Your task to perform on an android device: Search for "usb-a" on ebay.com, select the first entry, and add it to the cart. Image 0: 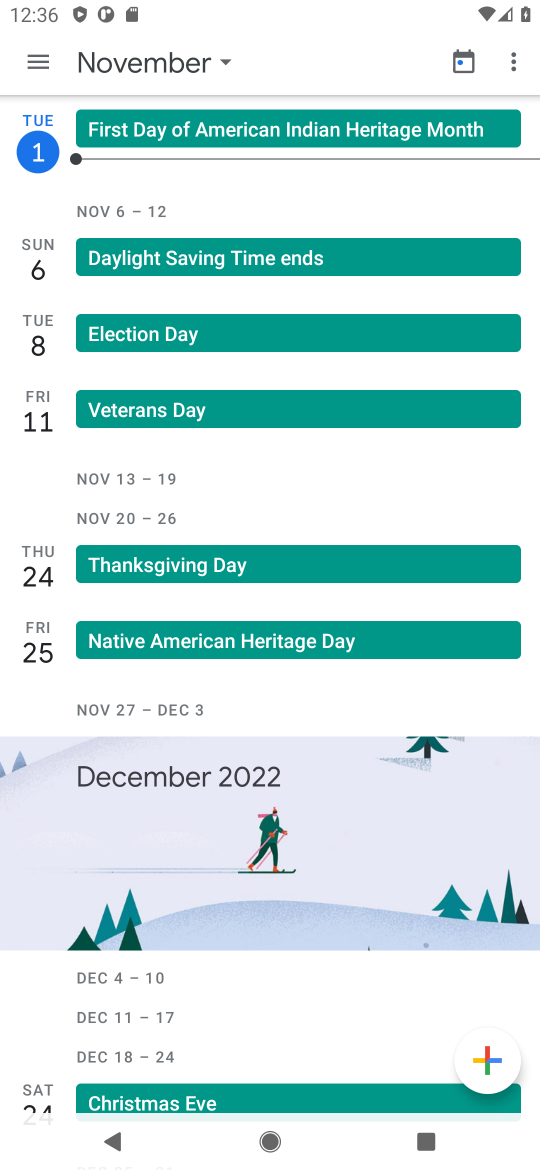
Step 0: press home button
Your task to perform on an android device: Search for "usb-a" on ebay.com, select the first entry, and add it to the cart. Image 1: 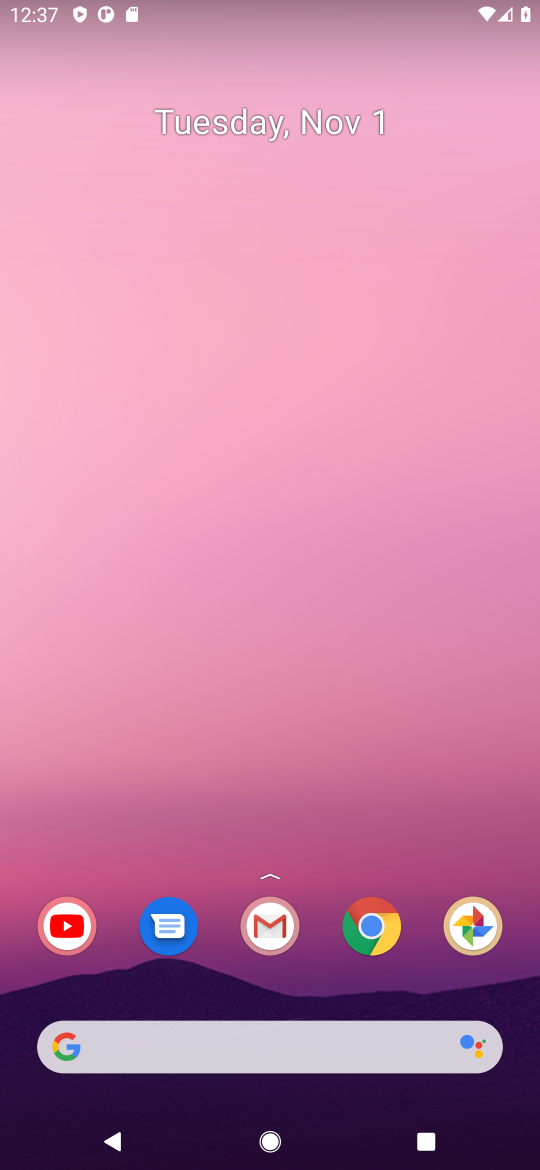
Step 1: click (375, 934)
Your task to perform on an android device: Search for "usb-a" on ebay.com, select the first entry, and add it to the cart. Image 2: 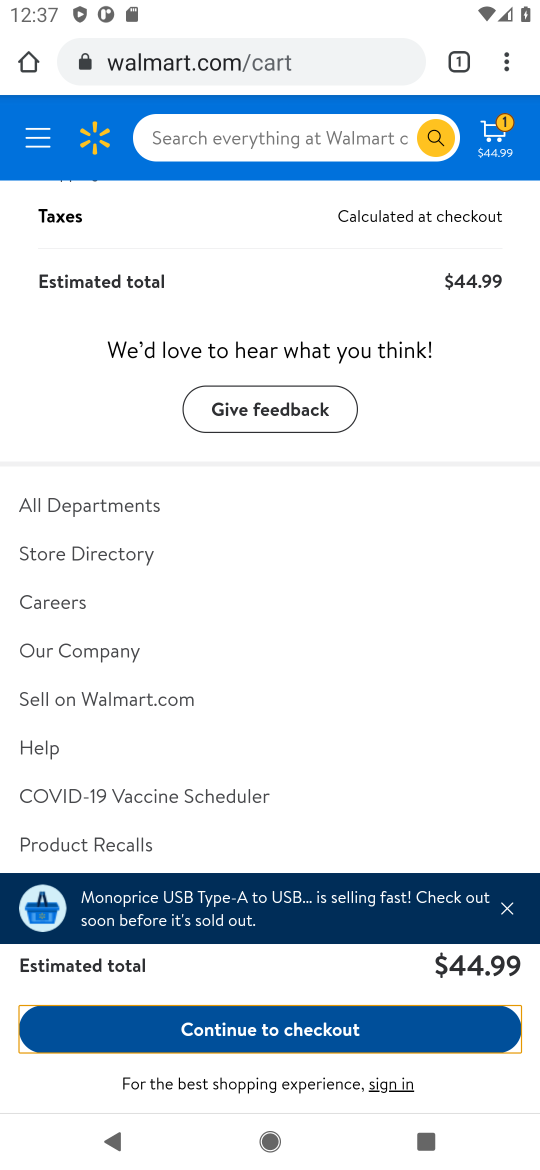
Step 2: click (186, 42)
Your task to perform on an android device: Search for "usb-a" on ebay.com, select the first entry, and add it to the cart. Image 3: 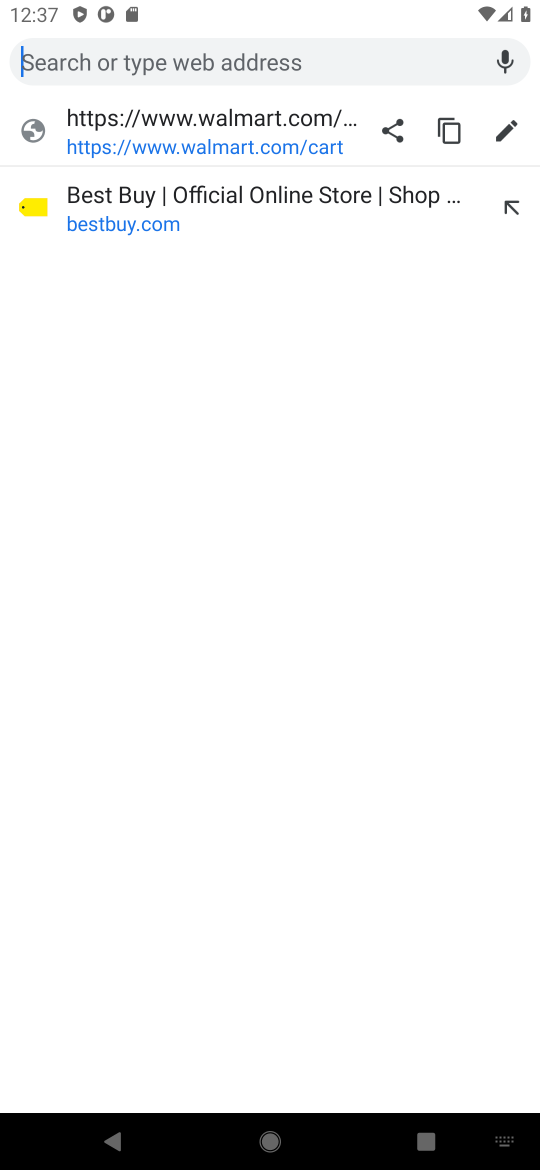
Step 3: type " ebay.com"
Your task to perform on an android device: Search for "usb-a" on ebay.com, select the first entry, and add it to the cart. Image 4: 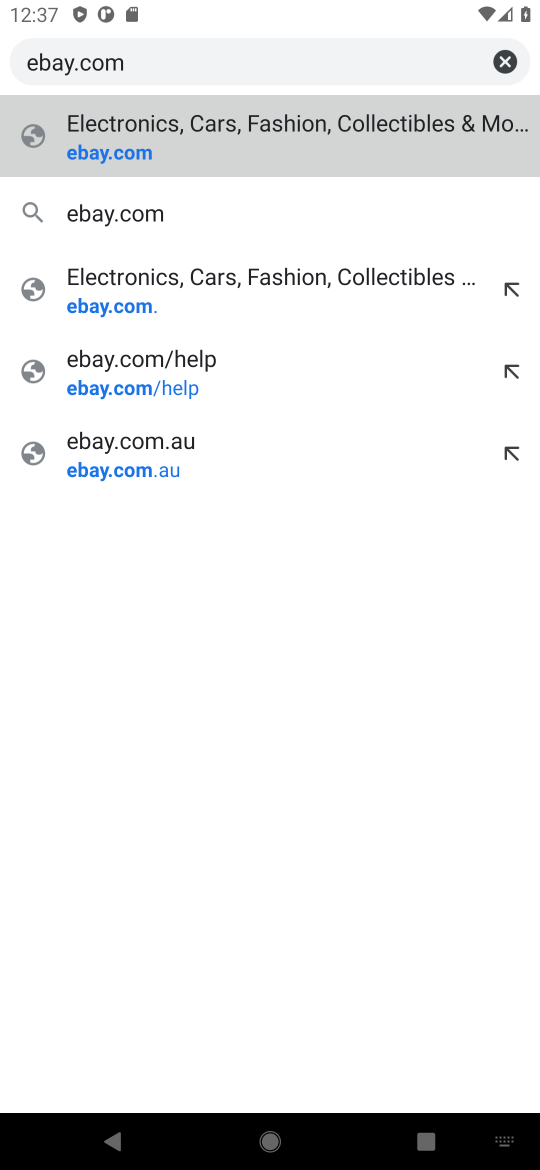
Step 4: type ""
Your task to perform on an android device: Search for "usb-a" on ebay.com, select the first entry, and add it to the cart. Image 5: 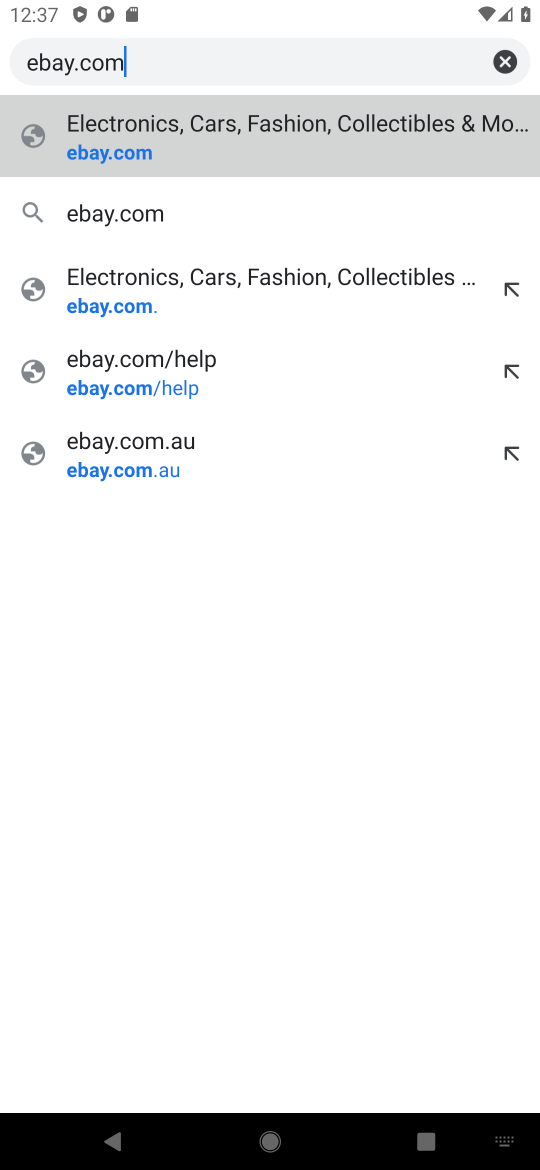
Step 5: click (266, 145)
Your task to perform on an android device: Search for "usb-a" on ebay.com, select the first entry, and add it to the cart. Image 6: 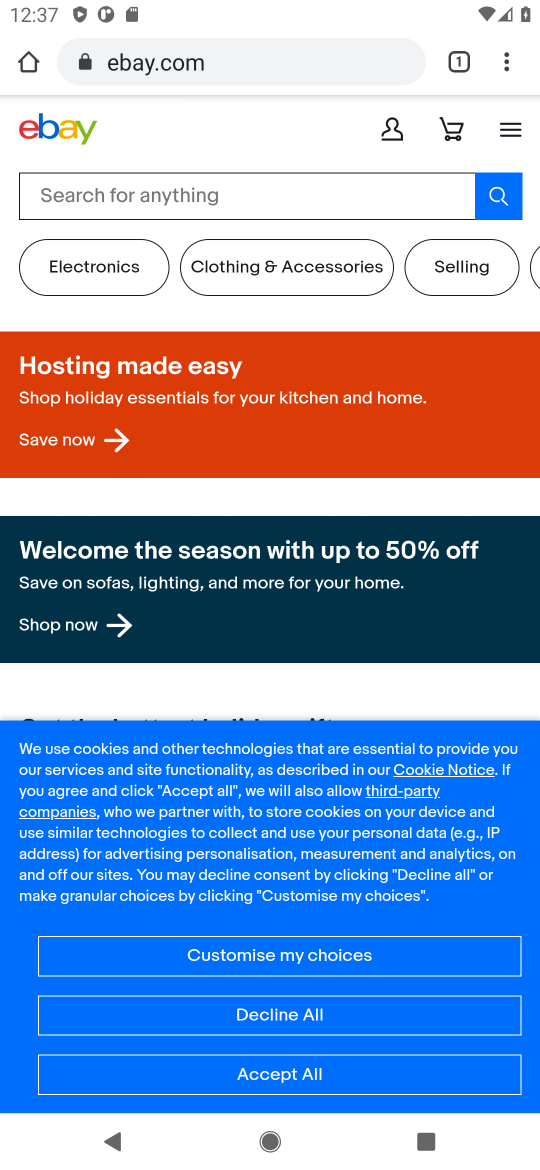
Step 6: click (266, 197)
Your task to perform on an android device: Search for "usb-a" on ebay.com, select the first entry, and add it to the cart. Image 7: 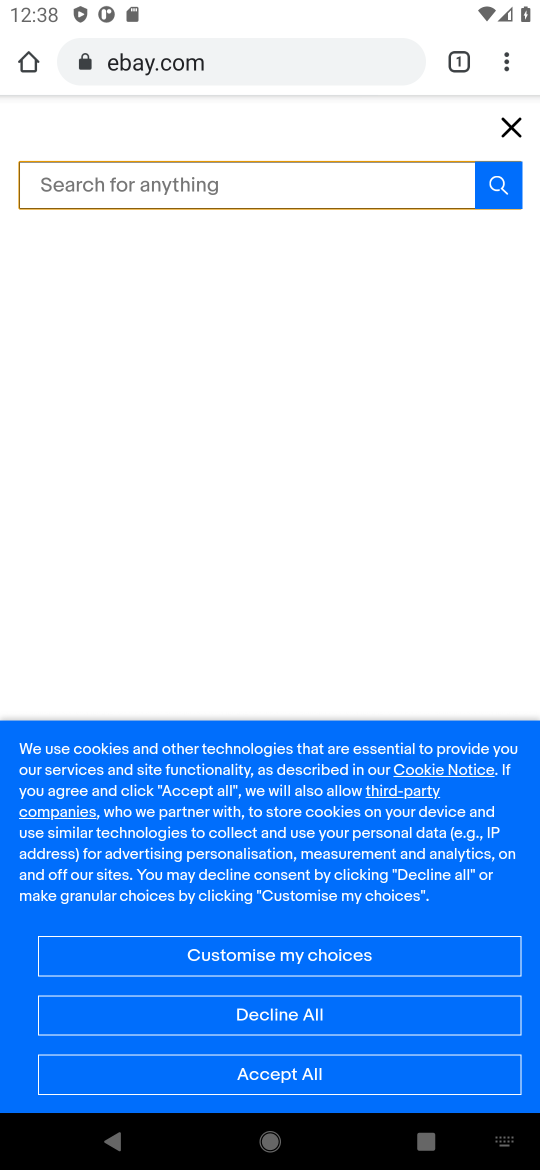
Step 7: type "usab-a"
Your task to perform on an android device: Search for "usb-a" on ebay.com, select the first entry, and add it to the cart. Image 8: 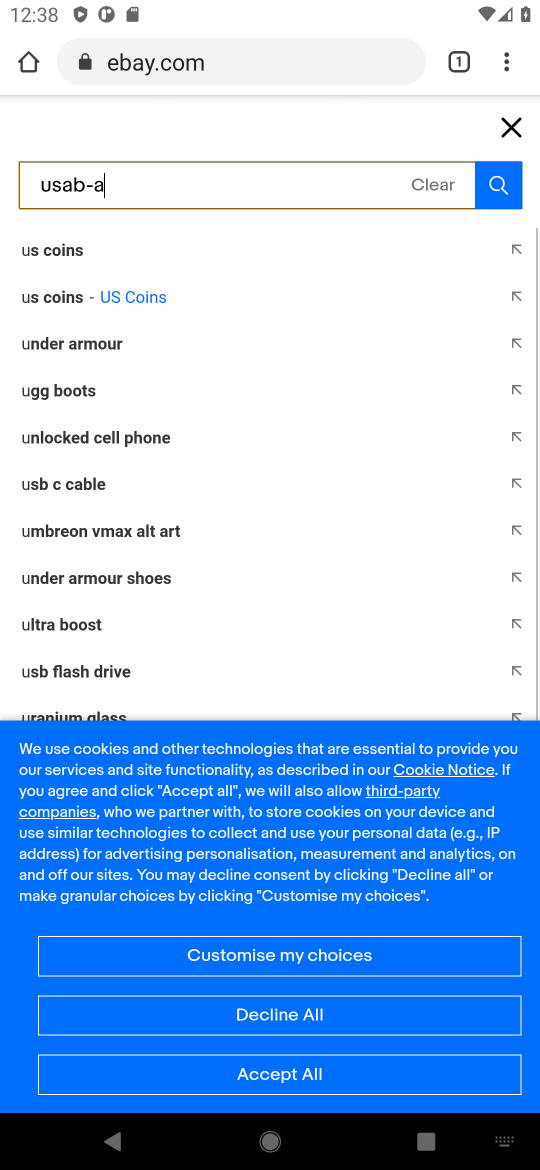
Step 8: type ""
Your task to perform on an android device: Search for "usb-a" on ebay.com, select the first entry, and add it to the cart. Image 9: 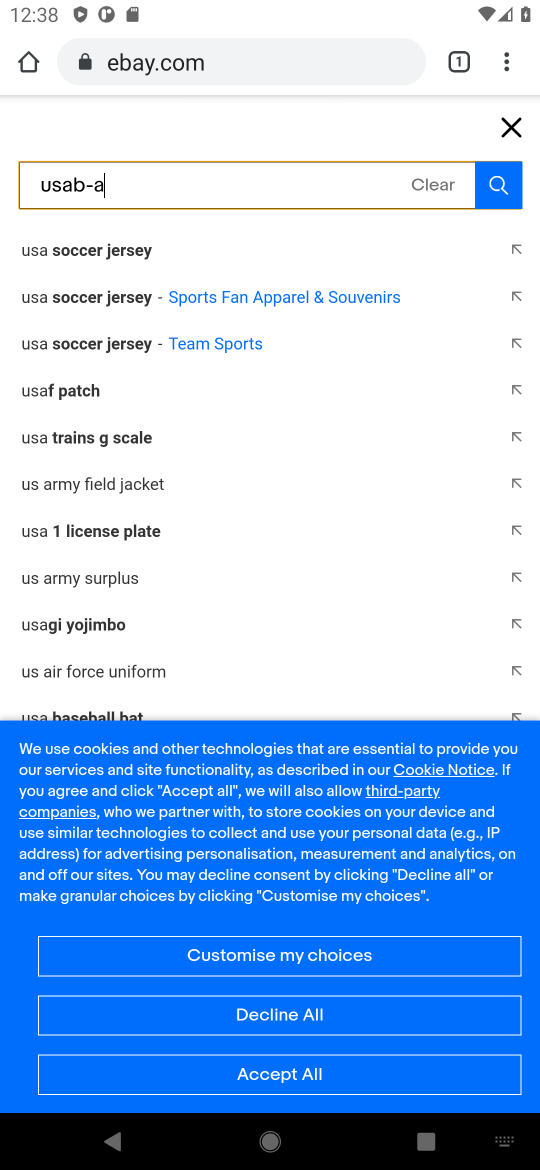
Step 9: click (505, 189)
Your task to perform on an android device: Search for "usb-a" on ebay.com, select the first entry, and add it to the cart. Image 10: 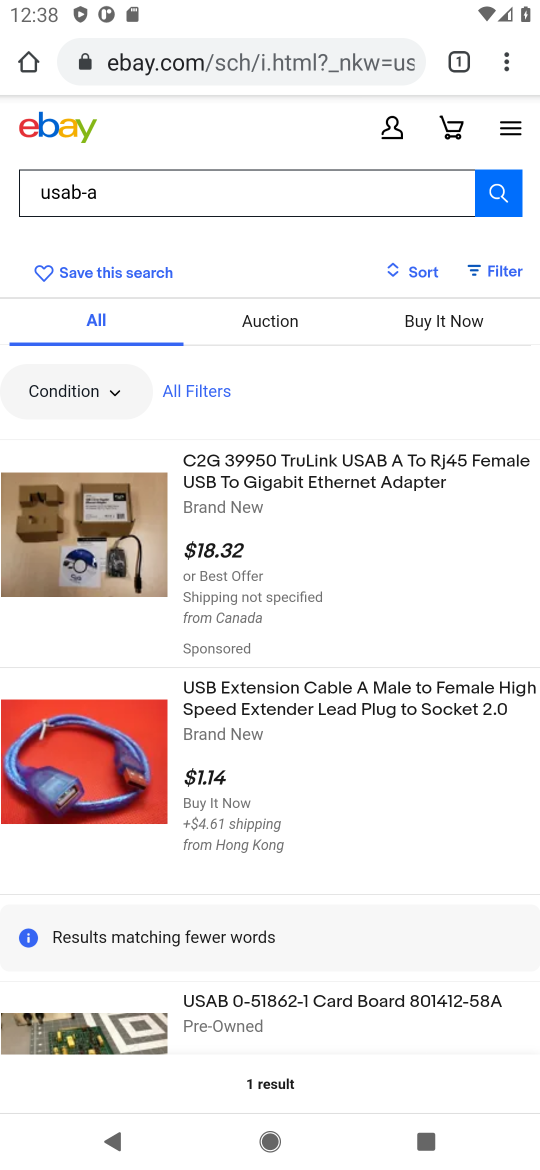
Step 10: click (348, 513)
Your task to perform on an android device: Search for "usb-a" on ebay.com, select the first entry, and add it to the cart. Image 11: 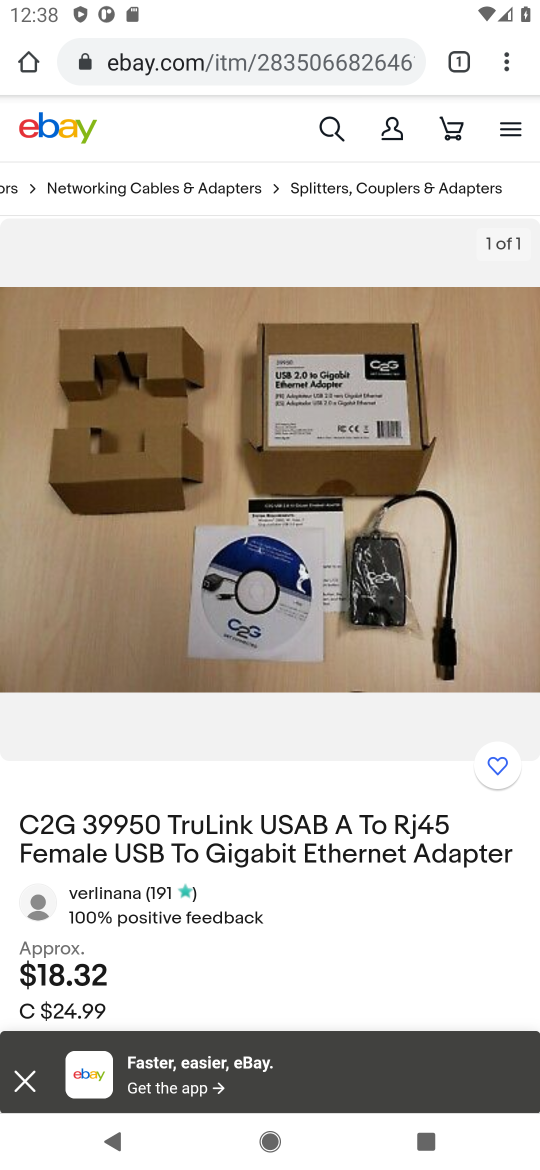
Step 11: click (28, 1080)
Your task to perform on an android device: Search for "usb-a" on ebay.com, select the first entry, and add it to the cart. Image 12: 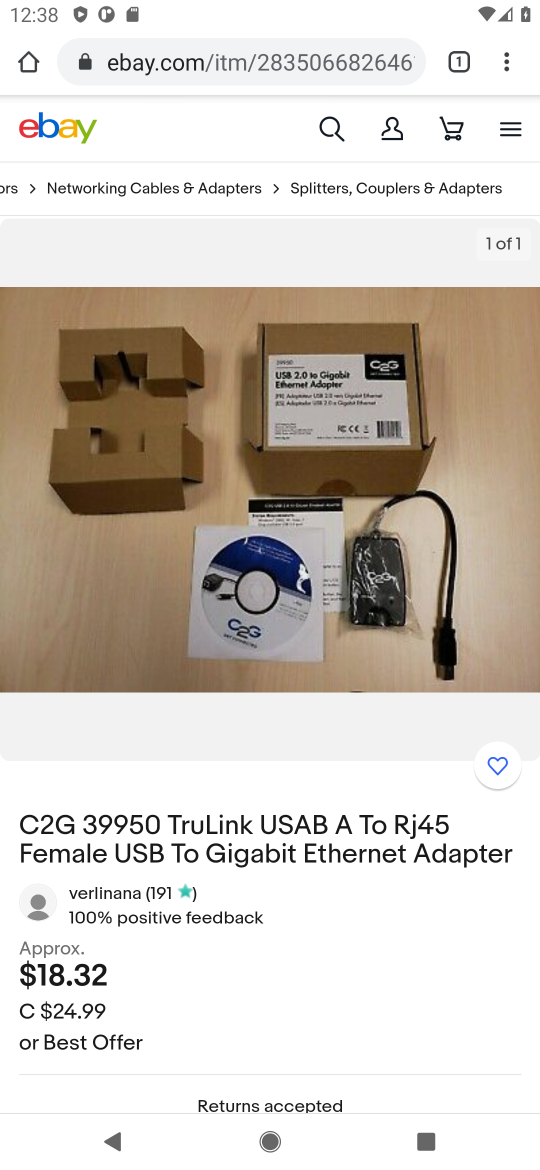
Step 12: drag from (359, 952) to (341, 303)
Your task to perform on an android device: Search for "usb-a" on ebay.com, select the first entry, and add it to the cart. Image 13: 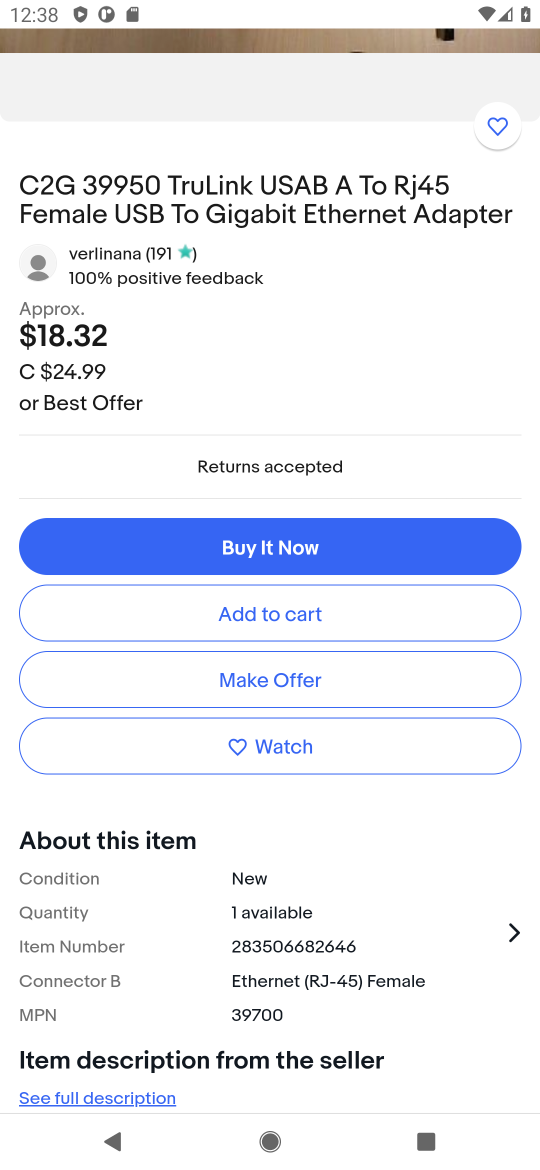
Step 13: click (329, 624)
Your task to perform on an android device: Search for "usb-a" on ebay.com, select the first entry, and add it to the cart. Image 14: 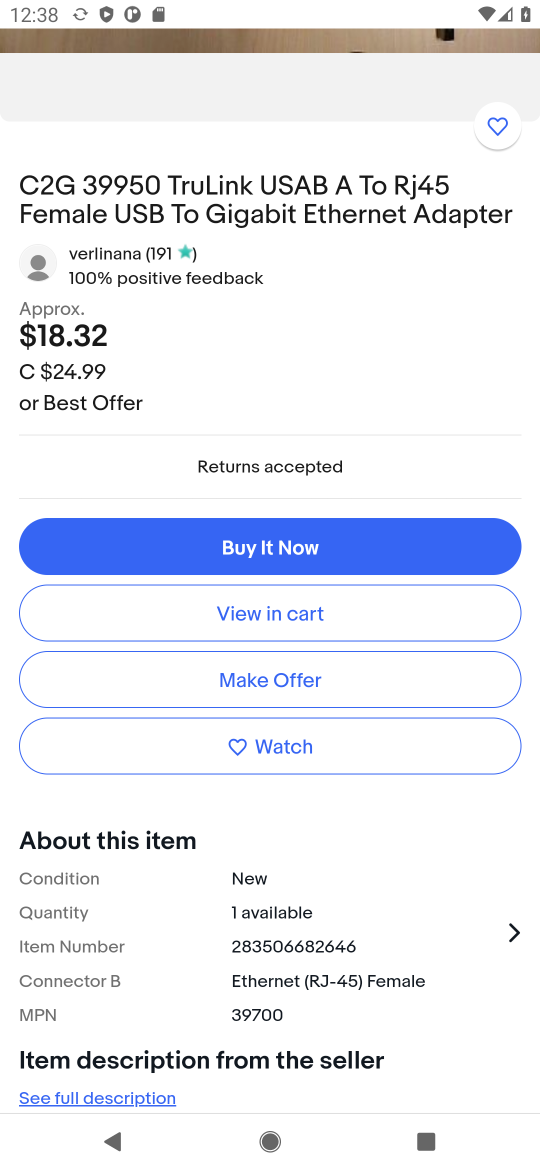
Step 14: click (329, 625)
Your task to perform on an android device: Search for "usb-a" on ebay.com, select the first entry, and add it to the cart. Image 15: 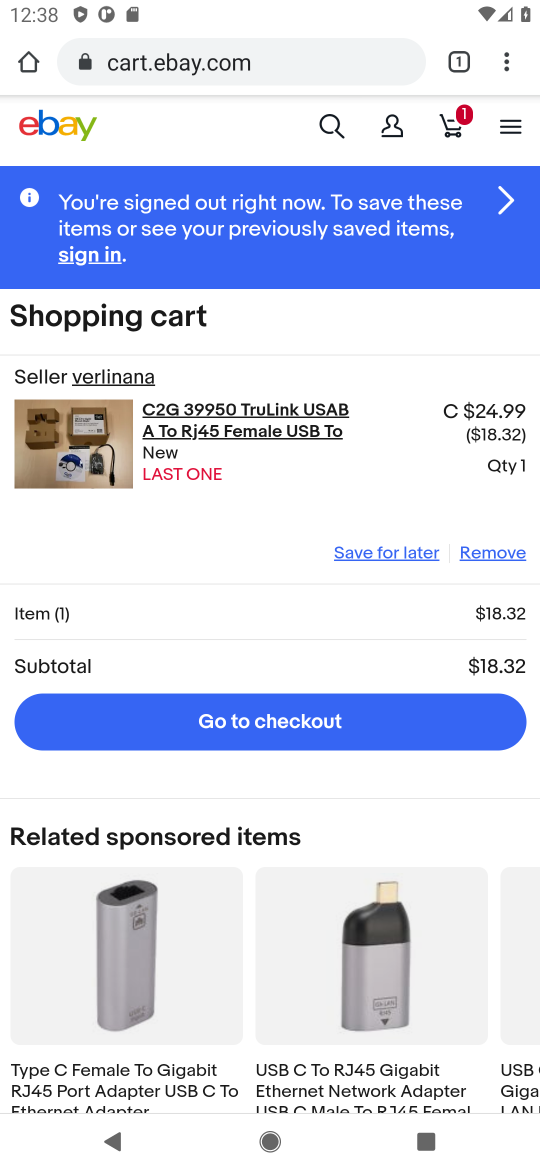
Step 15: click (296, 727)
Your task to perform on an android device: Search for "usb-a" on ebay.com, select the first entry, and add it to the cart. Image 16: 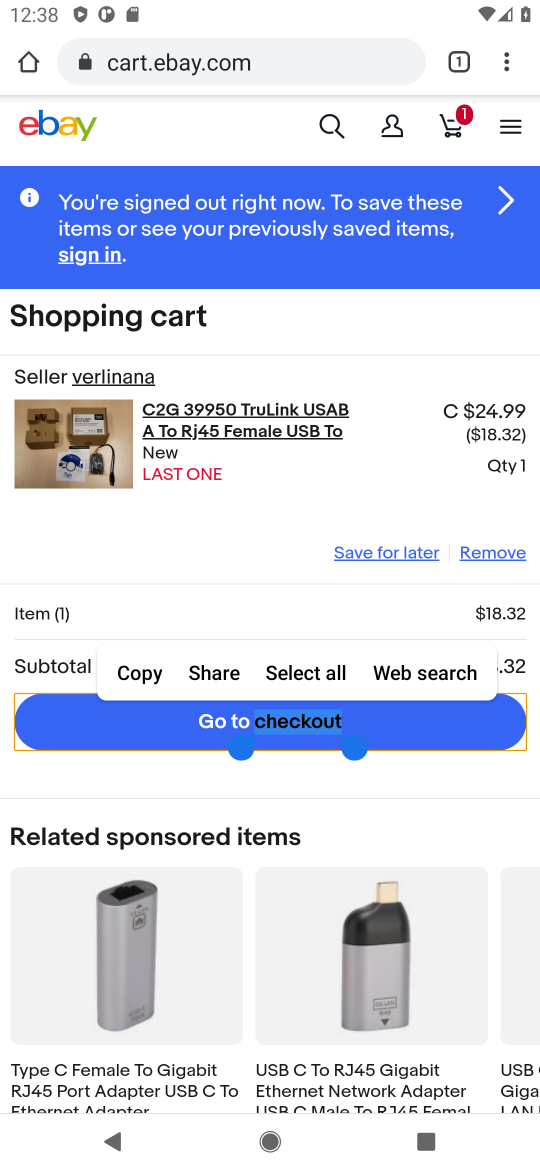
Step 16: click (296, 727)
Your task to perform on an android device: Search for "usb-a" on ebay.com, select the first entry, and add it to the cart. Image 17: 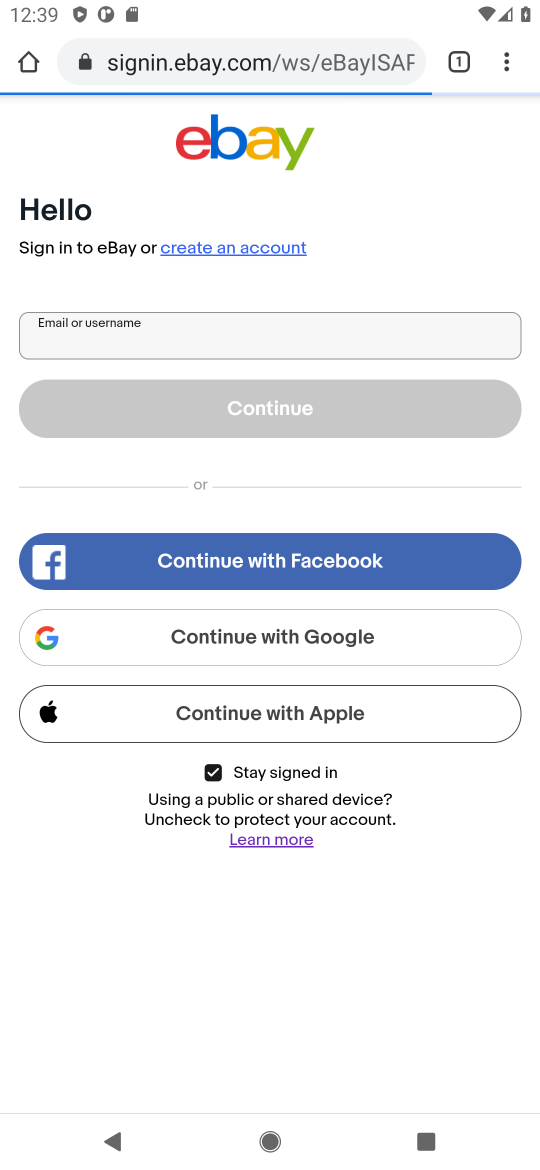
Step 17: task complete